Your task to perform on an android device: Open location settings Image 0: 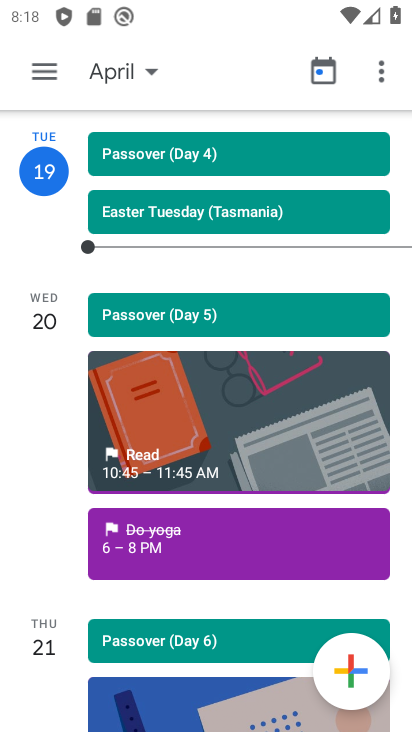
Step 0: press home button
Your task to perform on an android device: Open location settings Image 1: 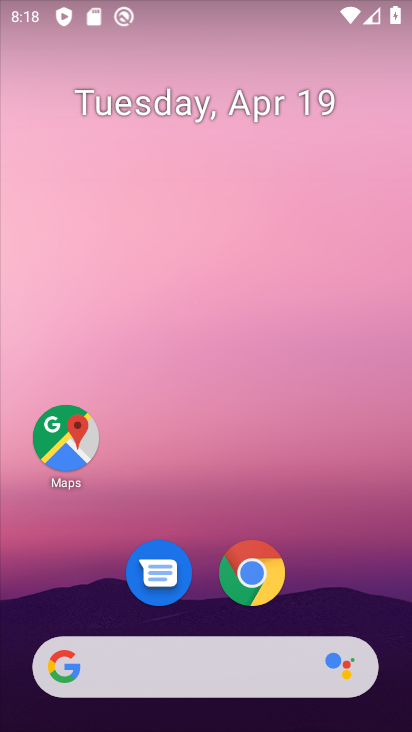
Step 1: drag from (332, 551) to (277, 82)
Your task to perform on an android device: Open location settings Image 2: 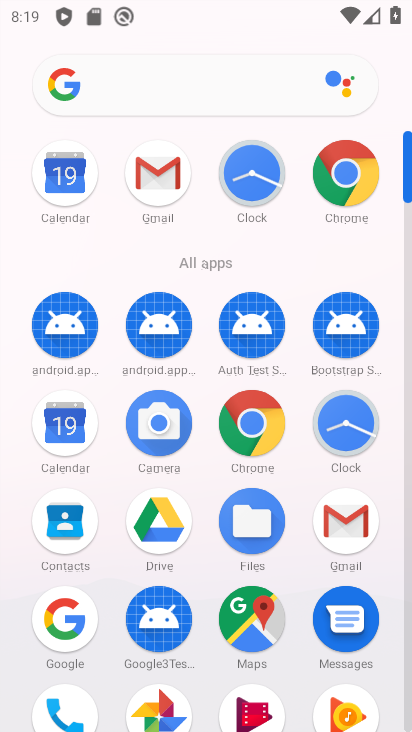
Step 2: drag from (210, 549) to (202, 243)
Your task to perform on an android device: Open location settings Image 3: 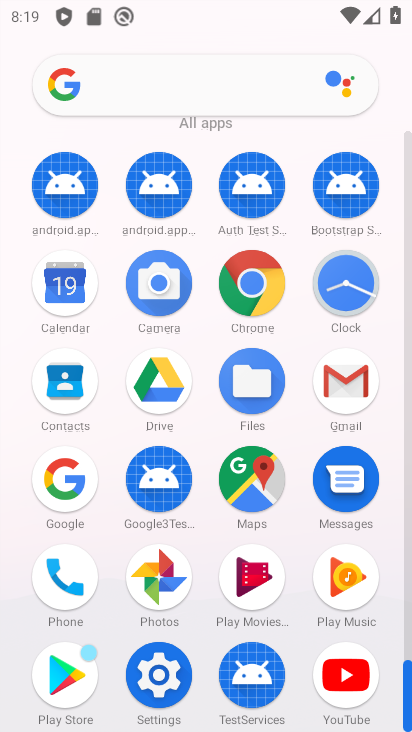
Step 3: click (146, 683)
Your task to perform on an android device: Open location settings Image 4: 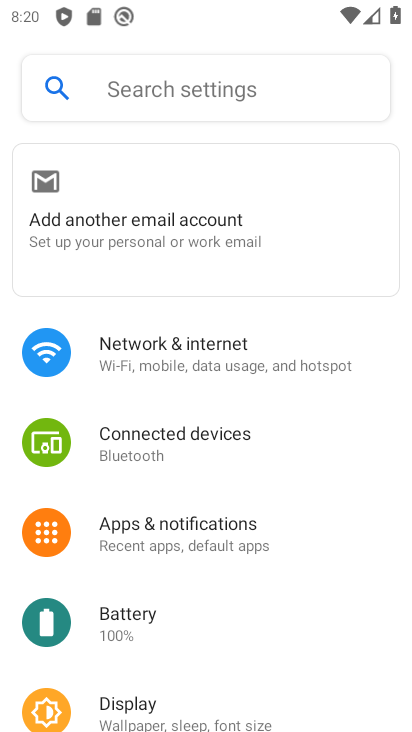
Step 4: drag from (195, 628) to (191, 229)
Your task to perform on an android device: Open location settings Image 5: 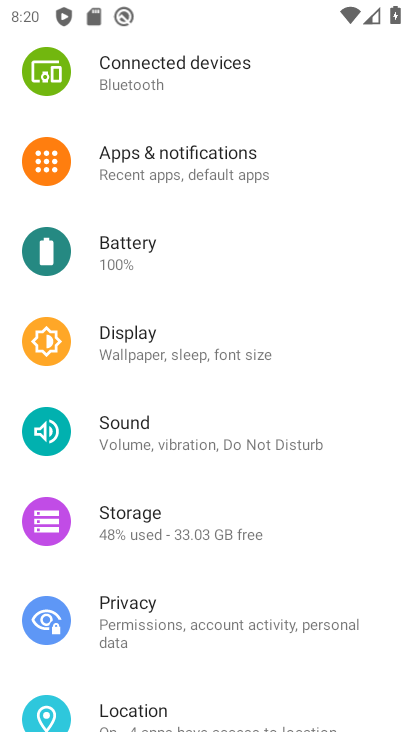
Step 5: click (151, 706)
Your task to perform on an android device: Open location settings Image 6: 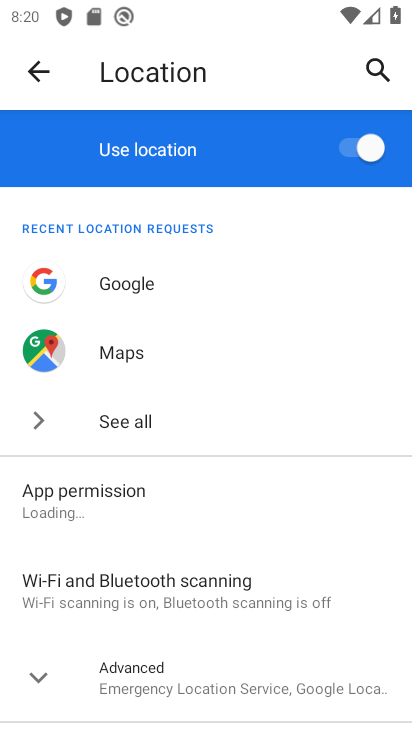
Step 6: task complete